Your task to perform on an android device: allow cookies in the chrome app Image 0: 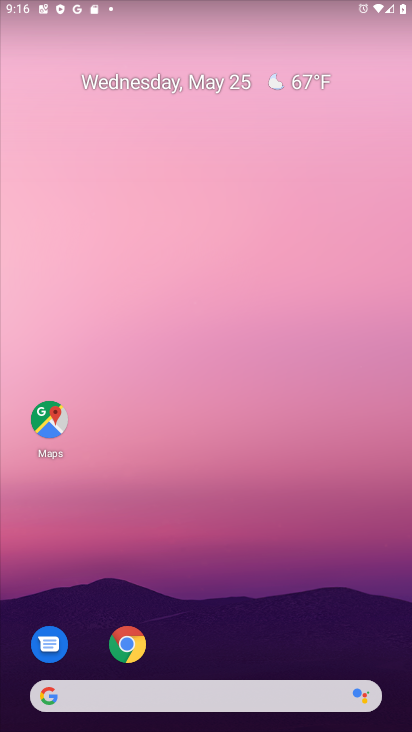
Step 0: press home button
Your task to perform on an android device: allow cookies in the chrome app Image 1: 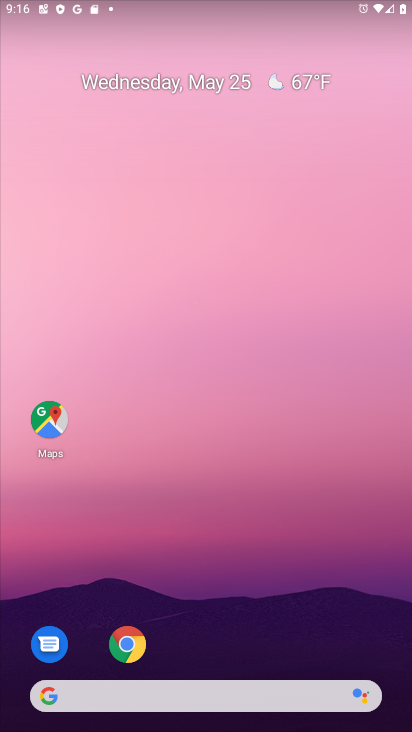
Step 1: click (126, 642)
Your task to perform on an android device: allow cookies in the chrome app Image 2: 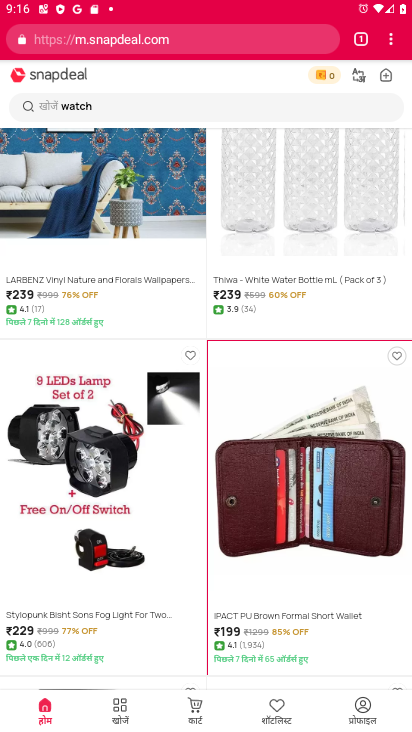
Step 2: click (363, 38)
Your task to perform on an android device: allow cookies in the chrome app Image 3: 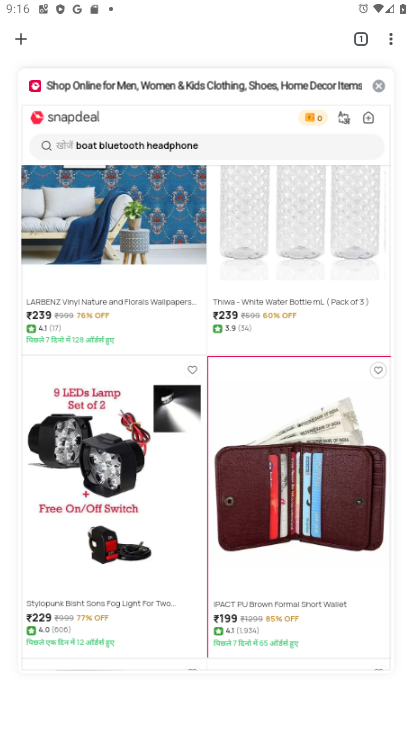
Step 3: click (376, 83)
Your task to perform on an android device: allow cookies in the chrome app Image 4: 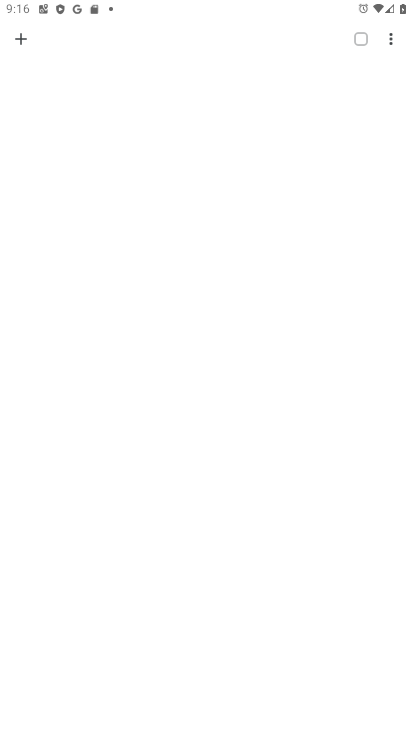
Step 4: click (23, 40)
Your task to perform on an android device: allow cookies in the chrome app Image 5: 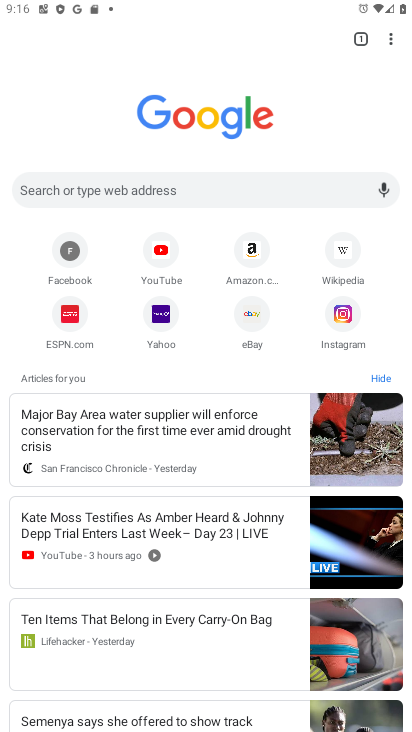
Step 5: click (392, 34)
Your task to perform on an android device: allow cookies in the chrome app Image 6: 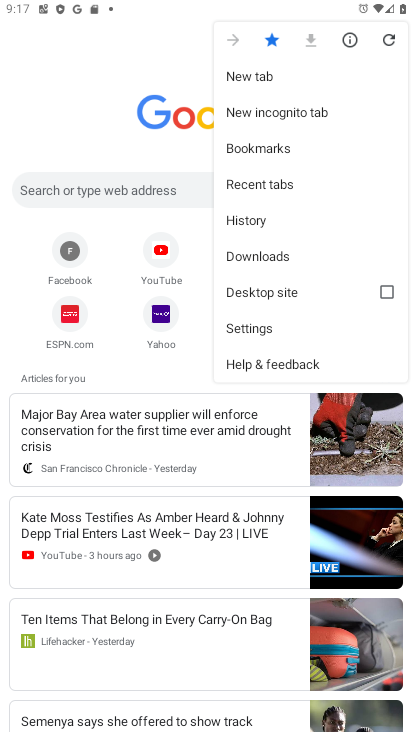
Step 6: click (280, 326)
Your task to perform on an android device: allow cookies in the chrome app Image 7: 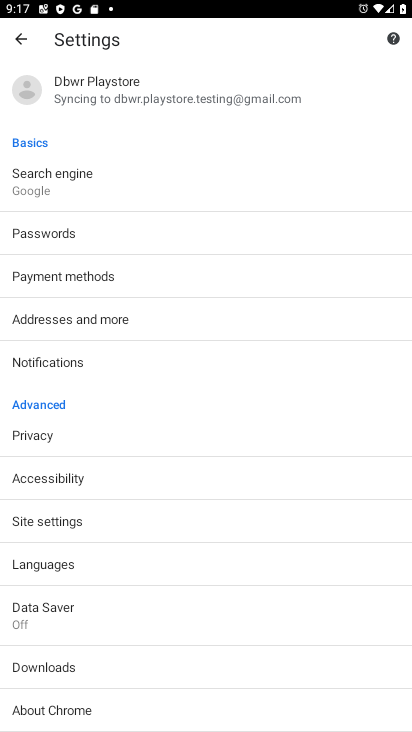
Step 7: click (101, 520)
Your task to perform on an android device: allow cookies in the chrome app Image 8: 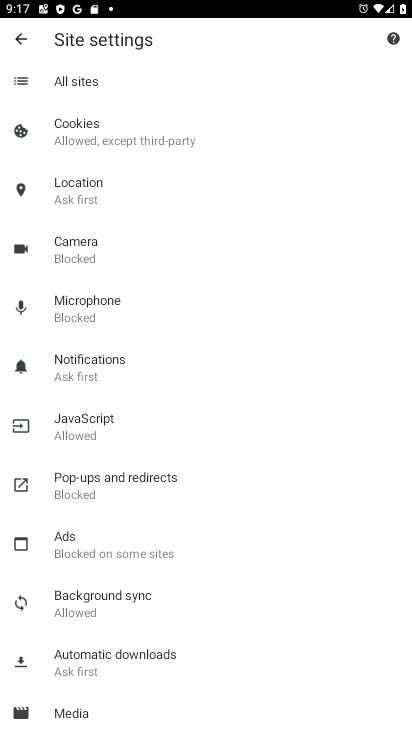
Step 8: click (108, 120)
Your task to perform on an android device: allow cookies in the chrome app Image 9: 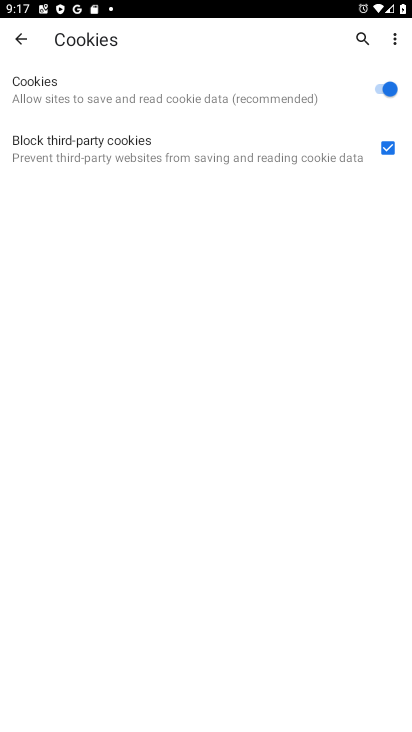
Step 9: task complete